Your task to perform on an android device: create a new album in the google photos Image 0: 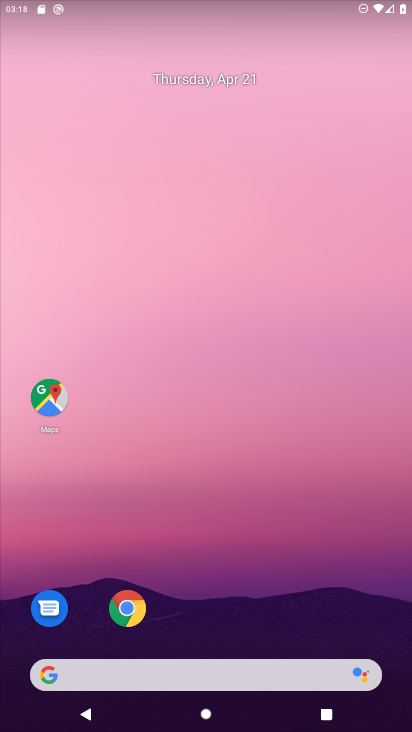
Step 0: drag from (260, 442) to (301, 122)
Your task to perform on an android device: create a new album in the google photos Image 1: 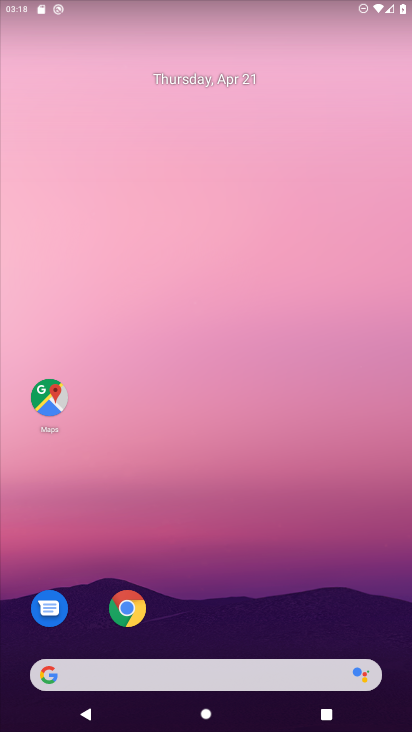
Step 1: drag from (242, 467) to (301, 187)
Your task to perform on an android device: create a new album in the google photos Image 2: 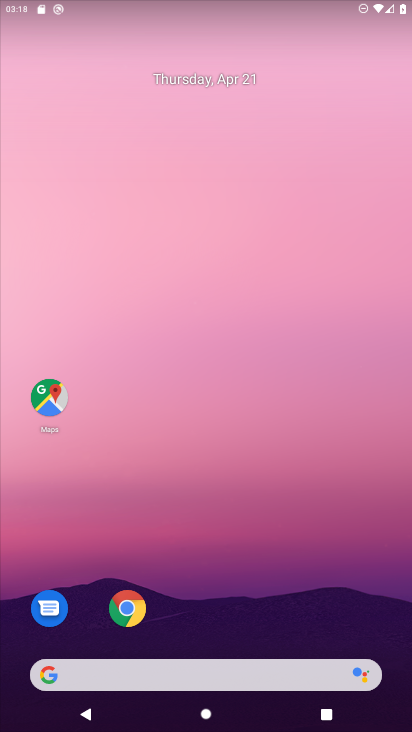
Step 2: drag from (251, 519) to (268, 163)
Your task to perform on an android device: create a new album in the google photos Image 3: 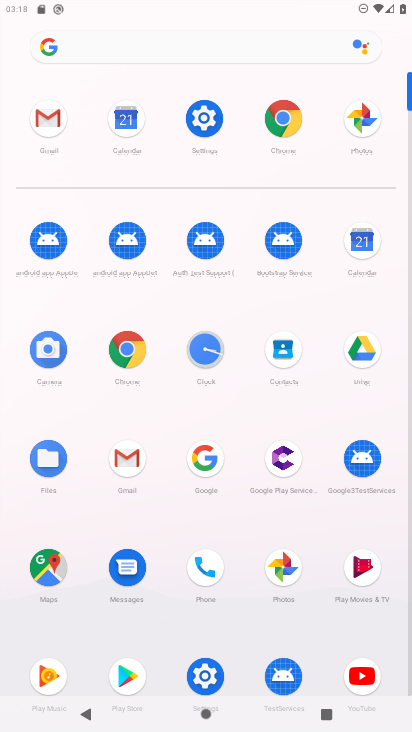
Step 3: click (274, 567)
Your task to perform on an android device: create a new album in the google photos Image 4: 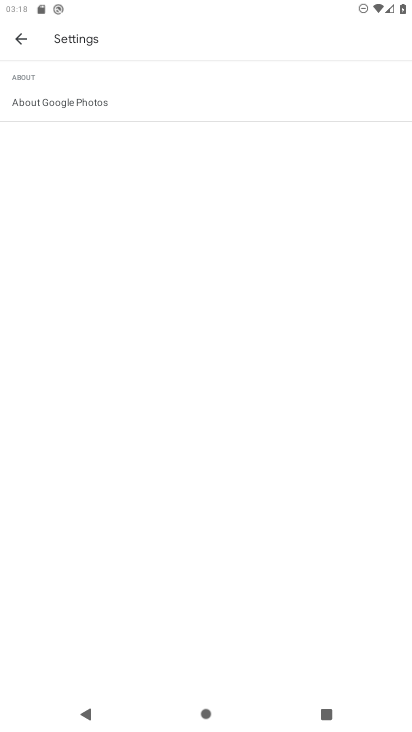
Step 4: click (20, 38)
Your task to perform on an android device: create a new album in the google photos Image 5: 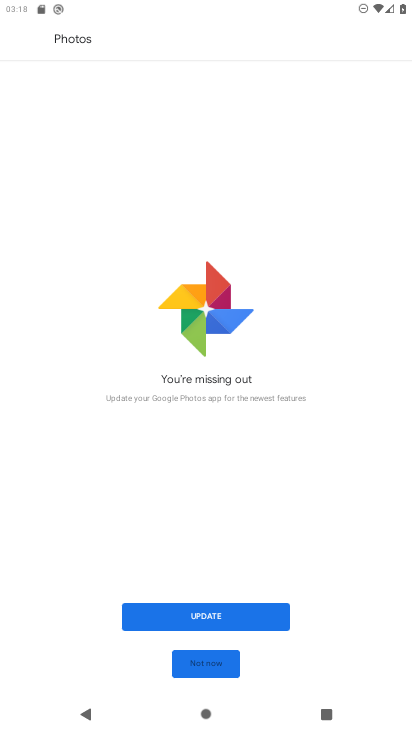
Step 5: click (194, 662)
Your task to perform on an android device: create a new album in the google photos Image 6: 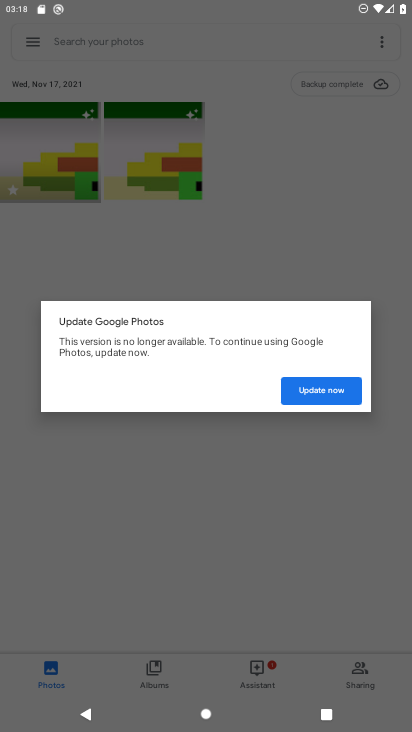
Step 6: click (318, 387)
Your task to perform on an android device: create a new album in the google photos Image 7: 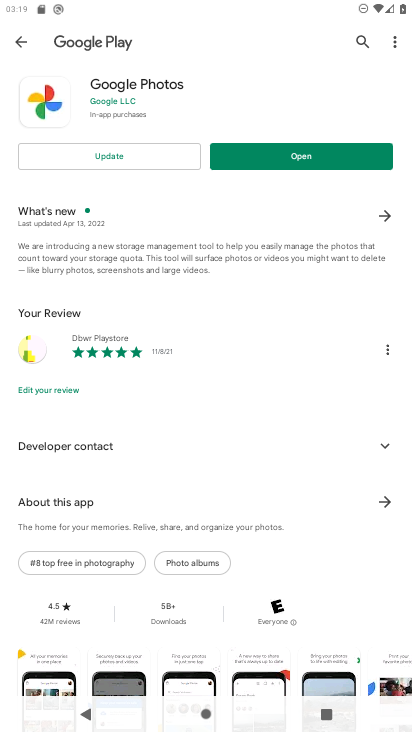
Step 7: press back button
Your task to perform on an android device: create a new album in the google photos Image 8: 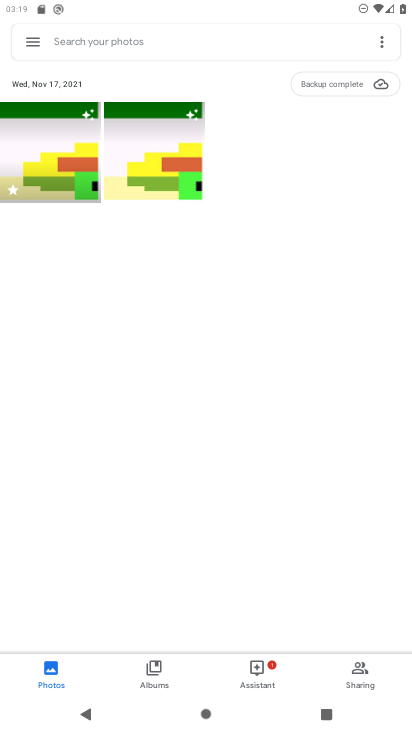
Step 8: click (36, 38)
Your task to perform on an android device: create a new album in the google photos Image 9: 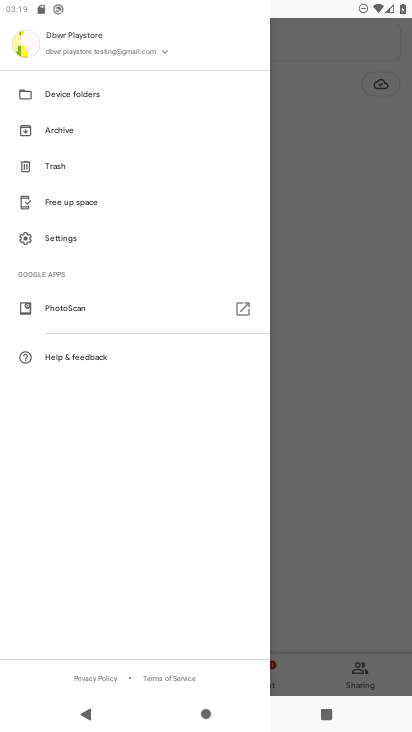
Step 9: click (332, 253)
Your task to perform on an android device: create a new album in the google photos Image 10: 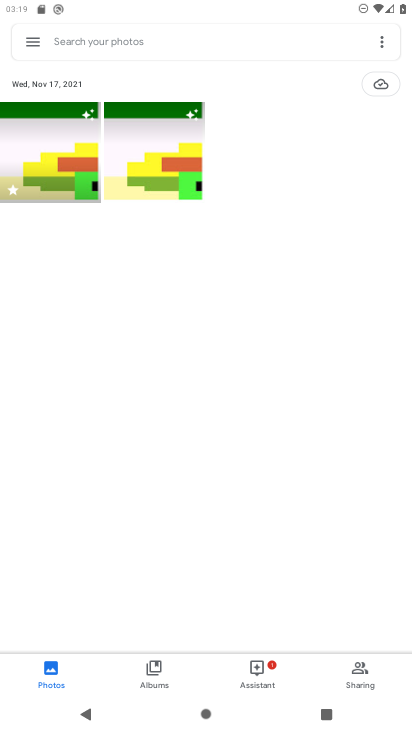
Step 10: click (48, 151)
Your task to perform on an android device: create a new album in the google photos Image 11: 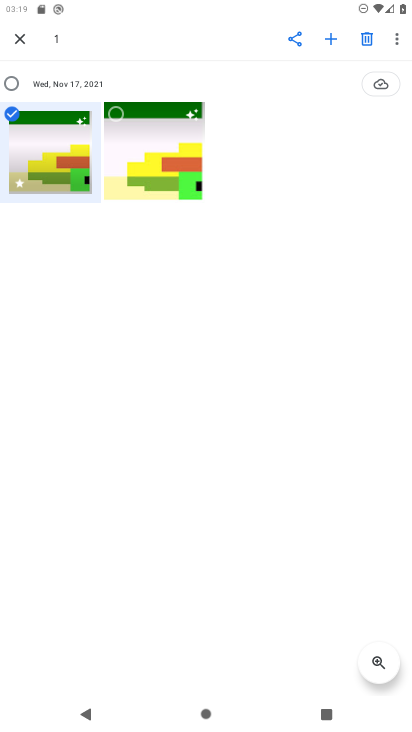
Step 11: click (326, 39)
Your task to perform on an android device: create a new album in the google photos Image 12: 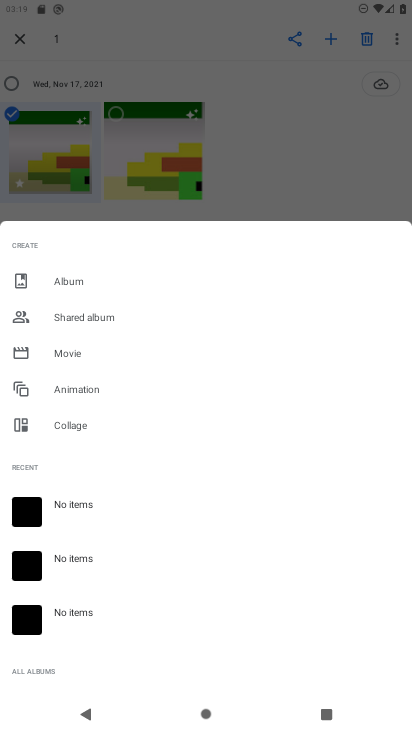
Step 12: click (75, 280)
Your task to perform on an android device: create a new album in the google photos Image 13: 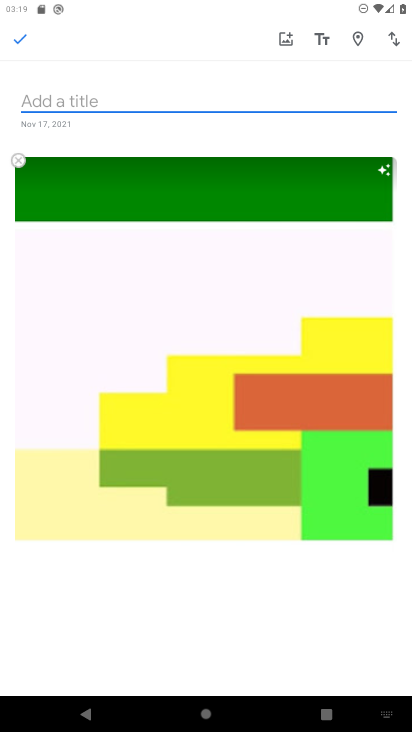
Step 13: click (266, 103)
Your task to perform on an android device: create a new album in the google photos Image 14: 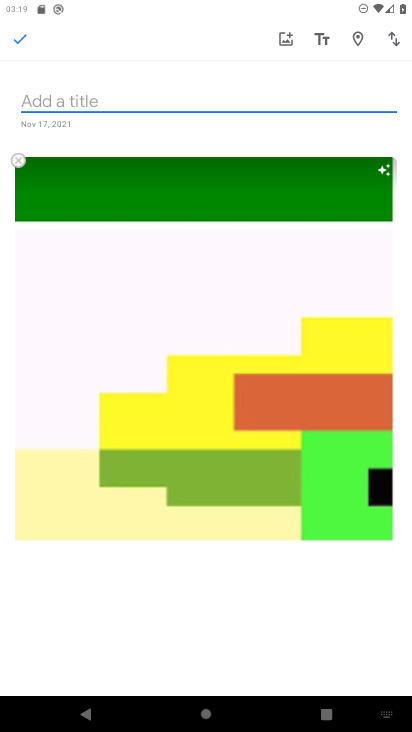
Step 14: type "gggggggggg"
Your task to perform on an android device: create a new album in the google photos Image 15: 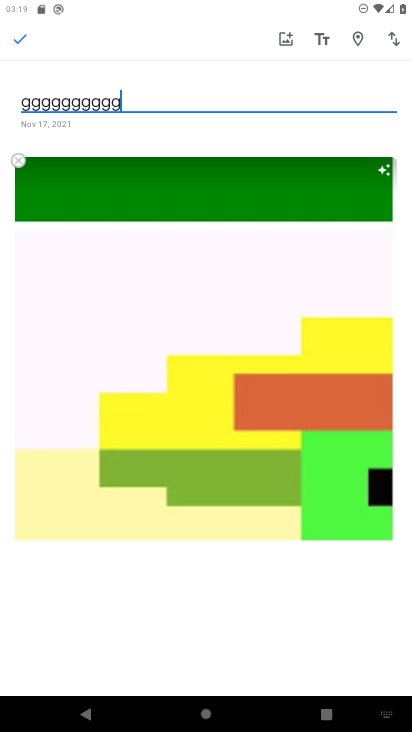
Step 15: click (19, 29)
Your task to perform on an android device: create a new album in the google photos Image 16: 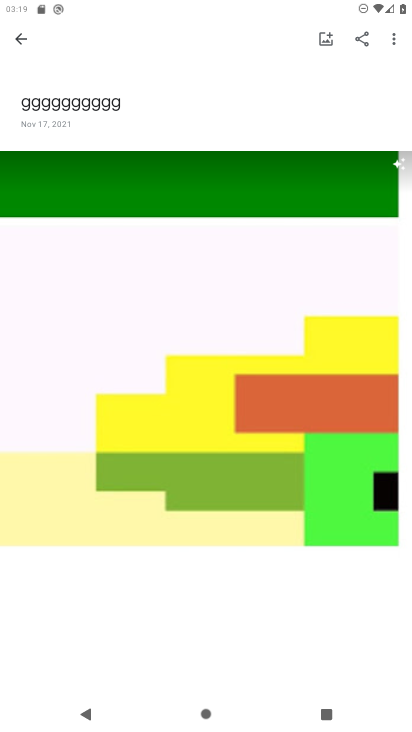
Step 16: task complete